Your task to perform on an android device: see creations saved in the google photos Image 0: 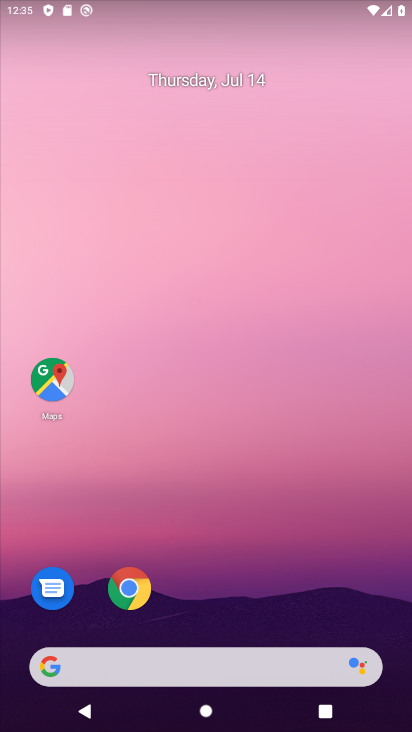
Step 0: drag from (268, 629) to (267, 232)
Your task to perform on an android device: see creations saved in the google photos Image 1: 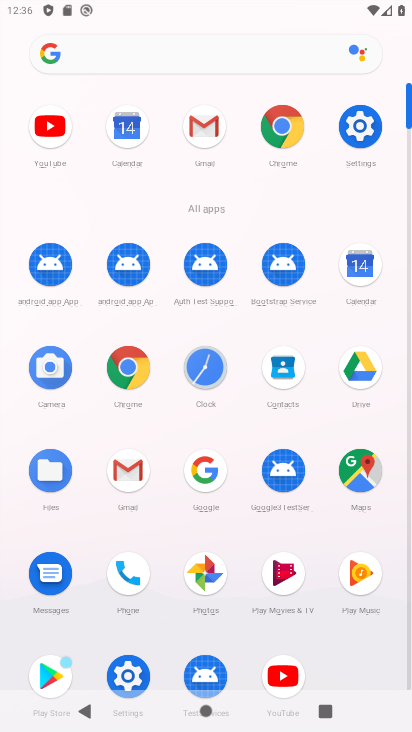
Step 1: click (214, 558)
Your task to perform on an android device: see creations saved in the google photos Image 2: 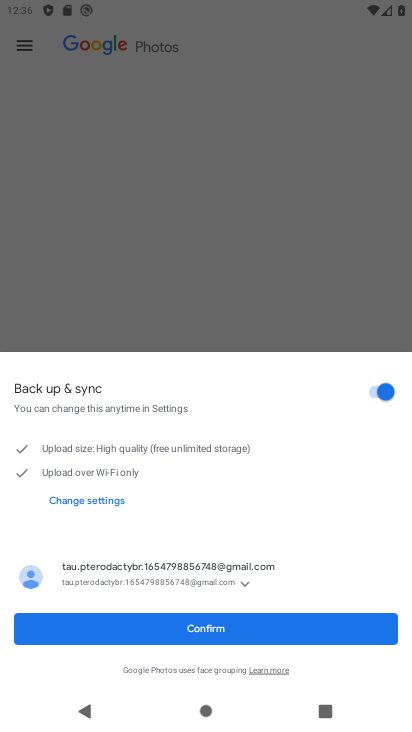
Step 2: click (210, 633)
Your task to perform on an android device: see creations saved in the google photos Image 3: 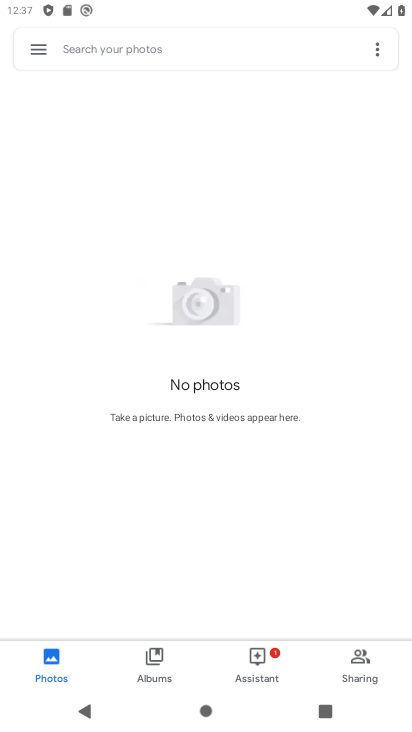
Step 3: task complete